Your task to perform on an android device: Search for sushi restaurants on Maps Image 0: 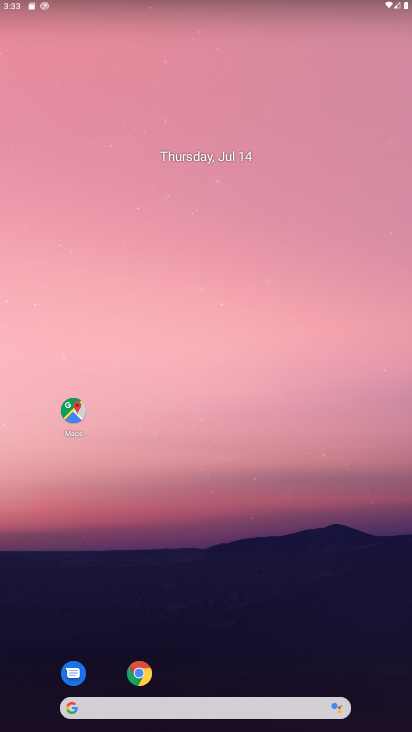
Step 0: press home button
Your task to perform on an android device: Search for sushi restaurants on Maps Image 1: 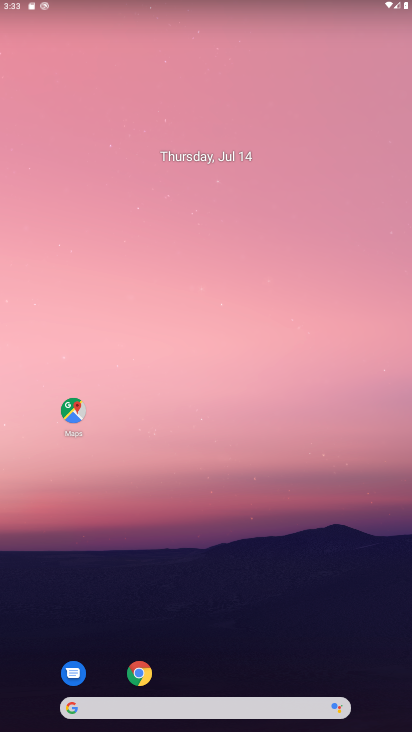
Step 1: drag from (197, 681) to (188, 0)
Your task to perform on an android device: Search for sushi restaurants on Maps Image 2: 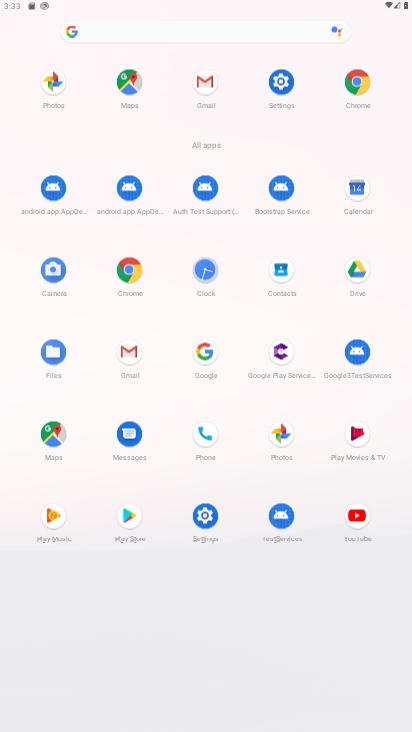
Step 2: click (204, 89)
Your task to perform on an android device: Search for sushi restaurants on Maps Image 3: 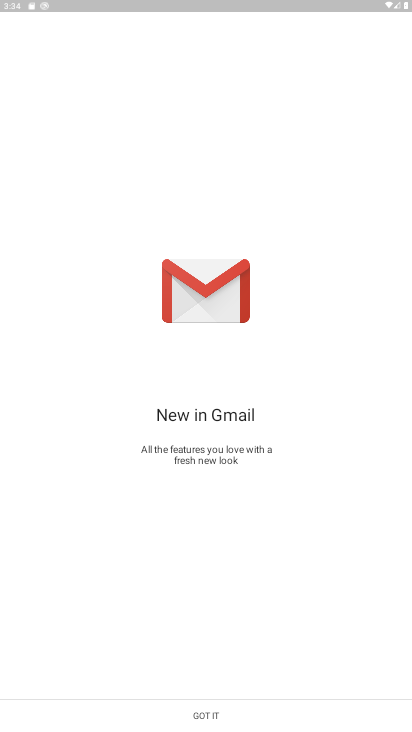
Step 3: click (217, 708)
Your task to perform on an android device: Search for sushi restaurants on Maps Image 4: 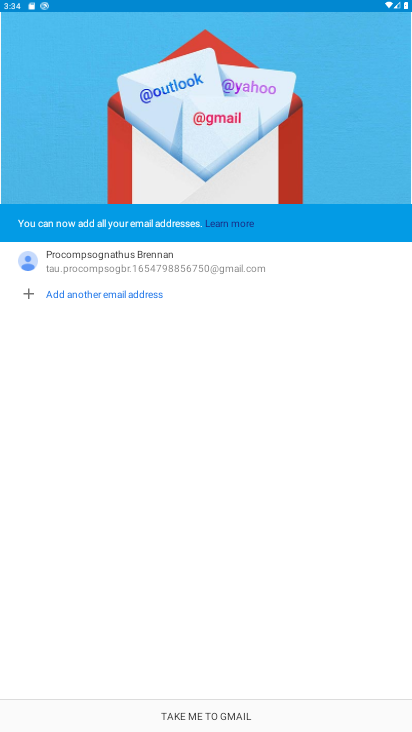
Step 4: press home button
Your task to perform on an android device: Search for sushi restaurants on Maps Image 5: 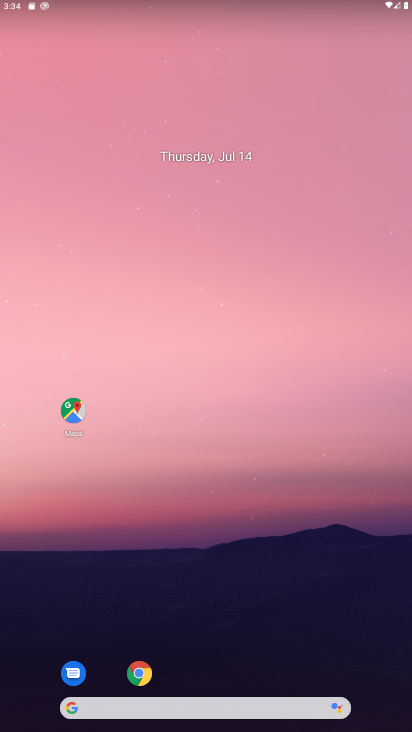
Step 5: click (70, 411)
Your task to perform on an android device: Search for sushi restaurants on Maps Image 6: 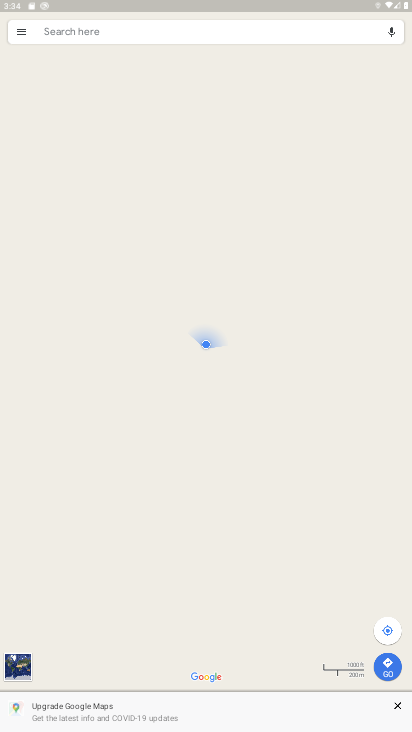
Step 6: click (155, 30)
Your task to perform on an android device: Search for sushi restaurants on Maps Image 7: 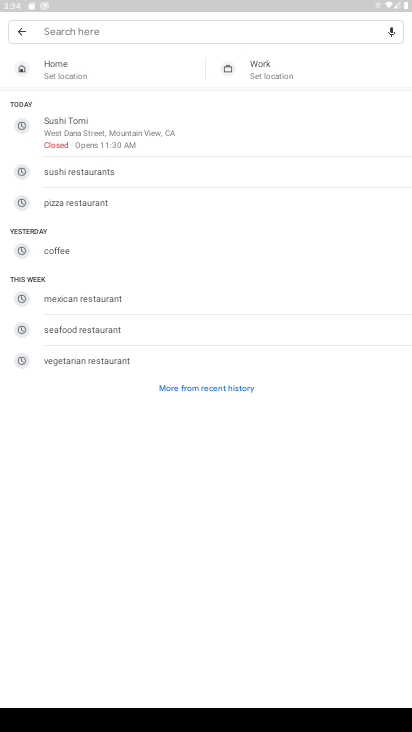
Step 7: click (121, 174)
Your task to perform on an android device: Search for sushi restaurants on Maps Image 8: 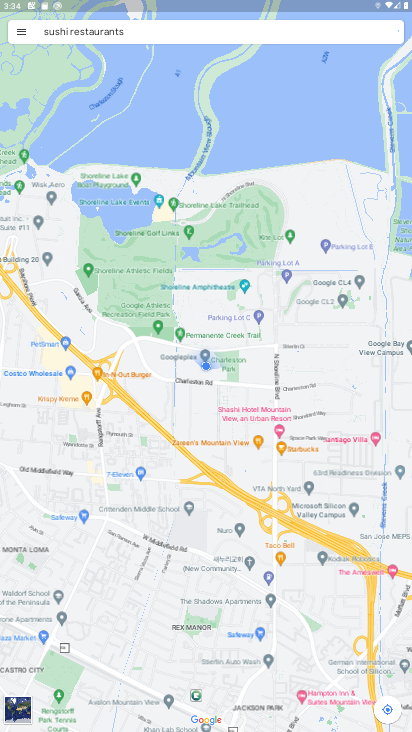
Step 8: task complete